Your task to perform on an android device: Show me the alarms in the clock app Image 0: 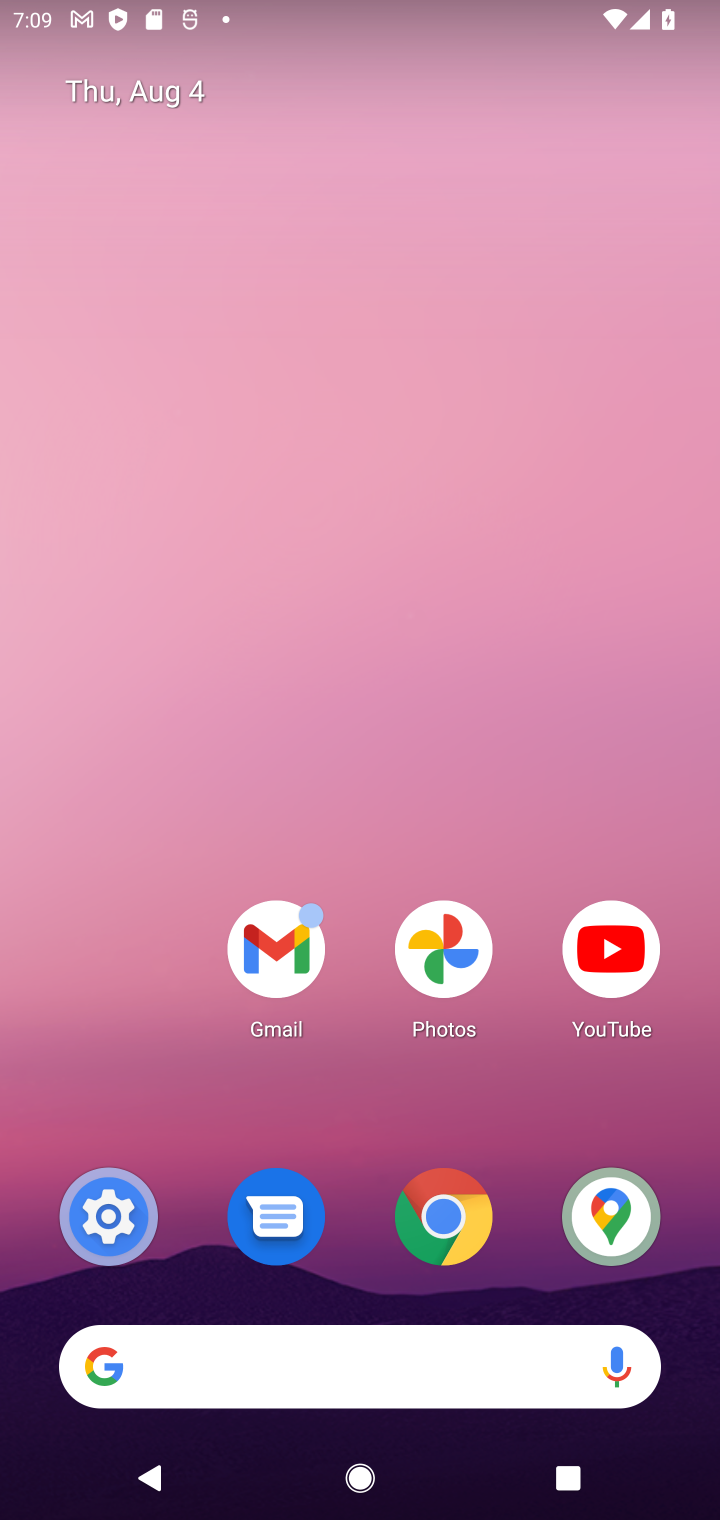
Step 0: drag from (372, 1298) to (409, 219)
Your task to perform on an android device: Show me the alarms in the clock app Image 1: 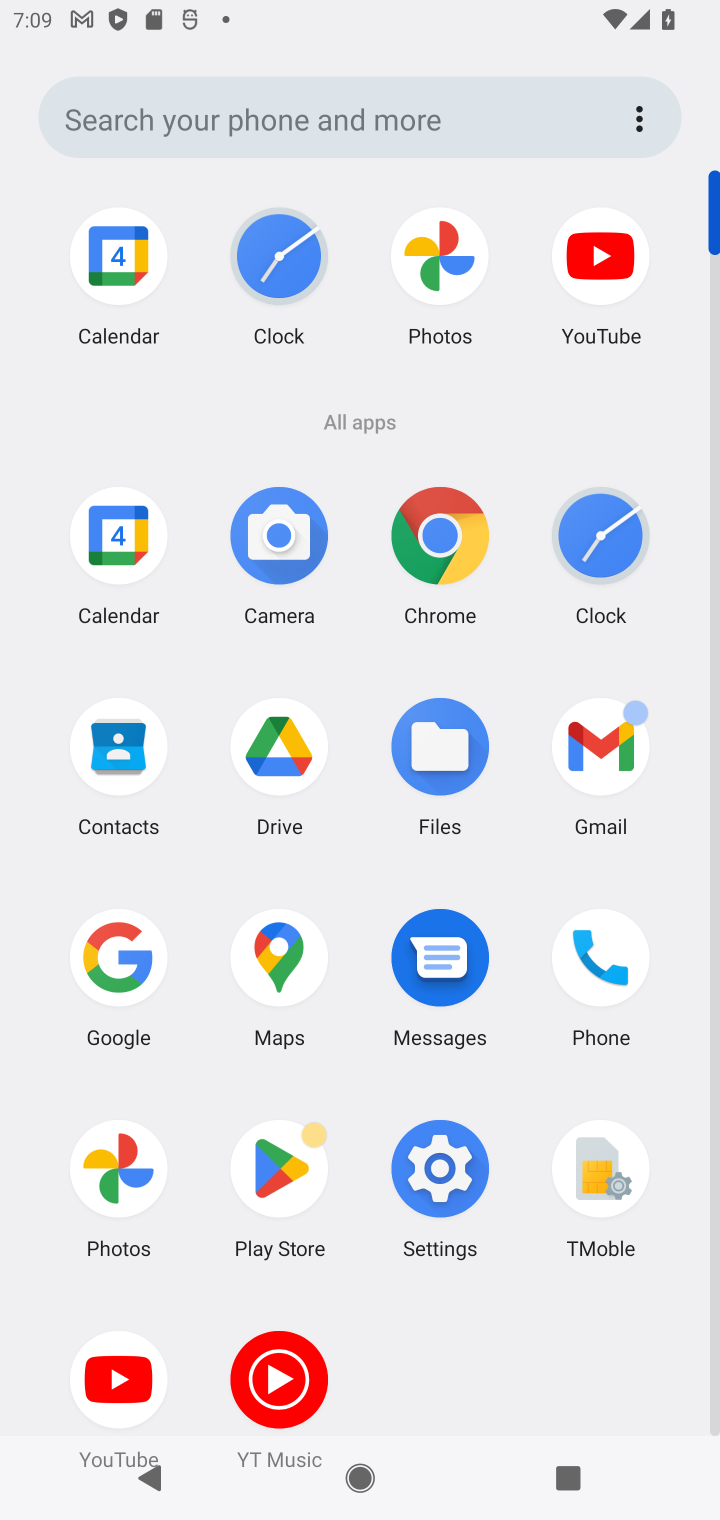
Step 1: click (587, 535)
Your task to perform on an android device: Show me the alarms in the clock app Image 2: 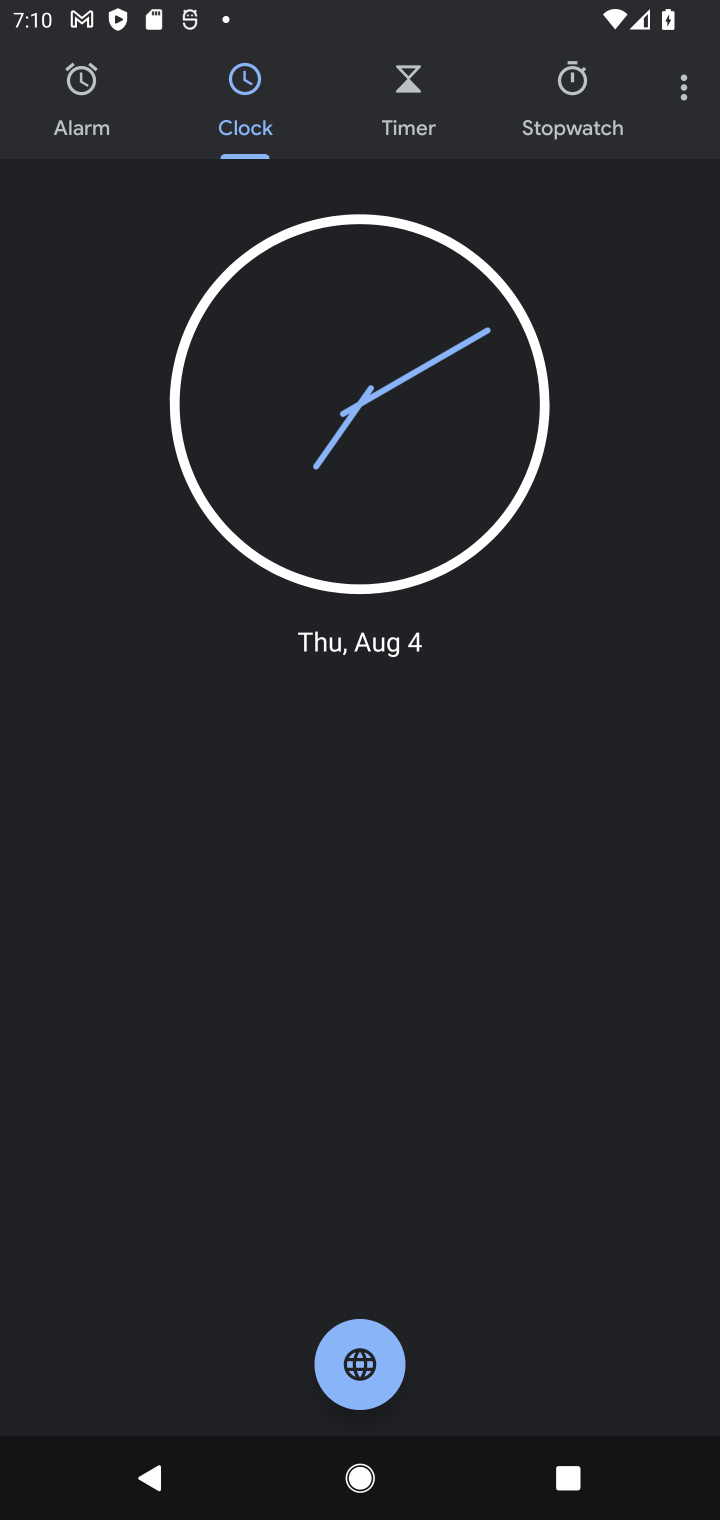
Step 2: click (92, 102)
Your task to perform on an android device: Show me the alarms in the clock app Image 3: 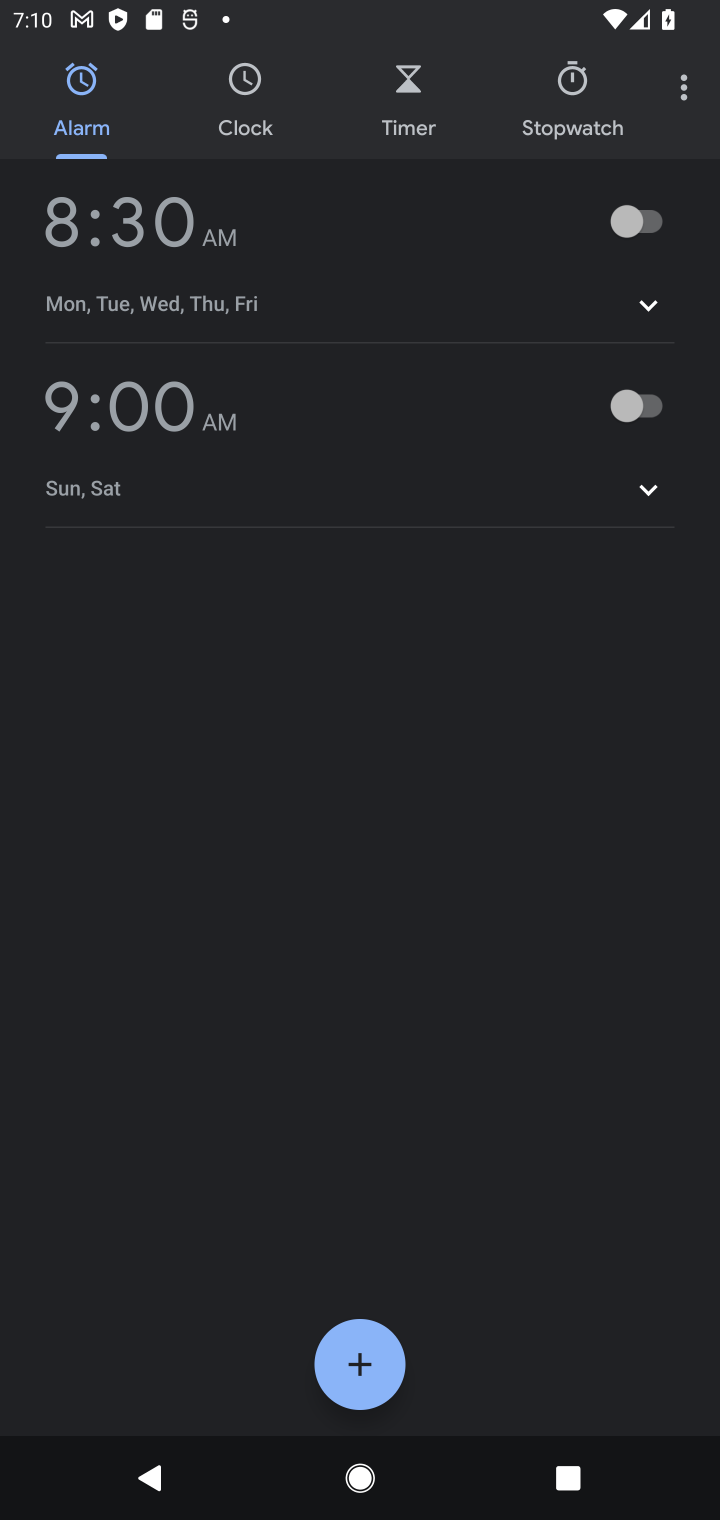
Step 3: task complete